Your task to perform on an android device: What's on my calendar today? Image 0: 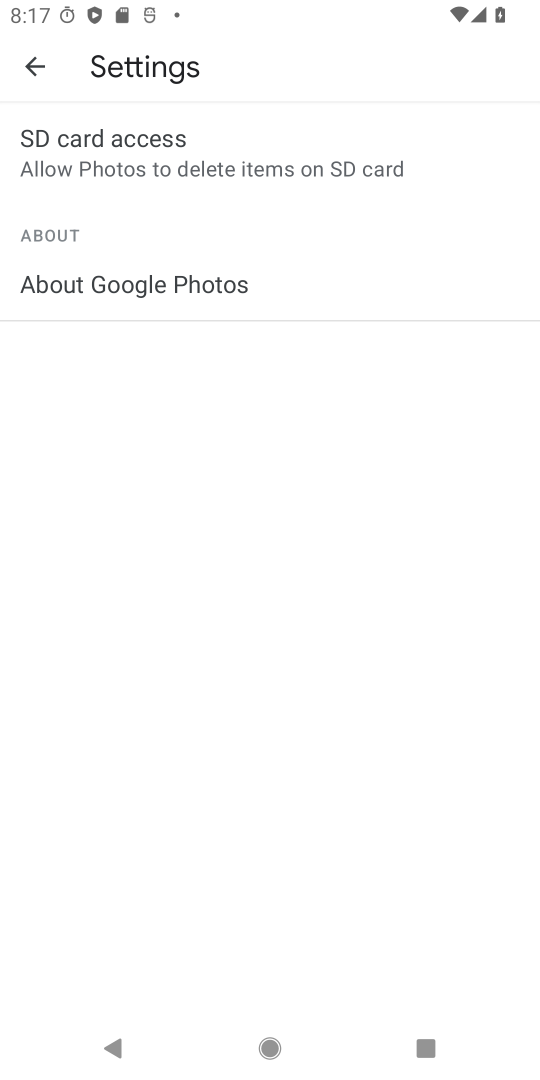
Step 0: click (28, 82)
Your task to perform on an android device: What's on my calendar today? Image 1: 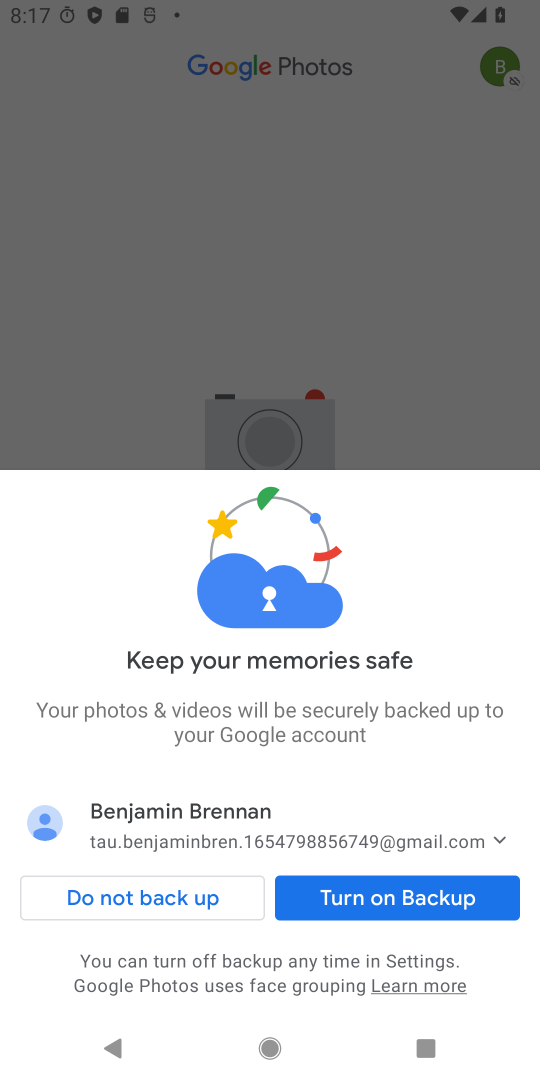
Step 1: click (371, 883)
Your task to perform on an android device: What's on my calendar today? Image 2: 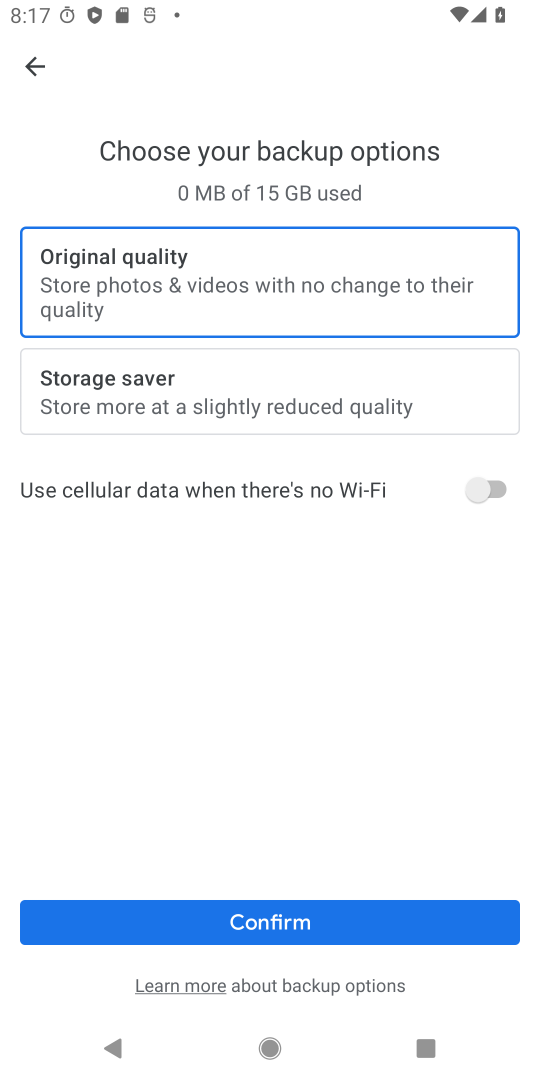
Step 2: click (29, 64)
Your task to perform on an android device: What's on my calendar today? Image 3: 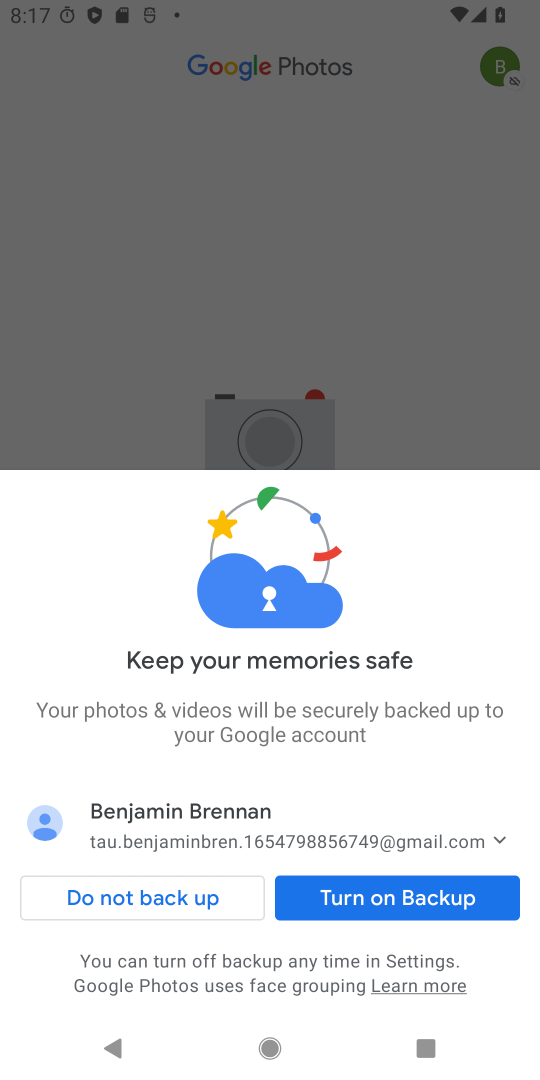
Step 3: click (358, 897)
Your task to perform on an android device: What's on my calendar today? Image 4: 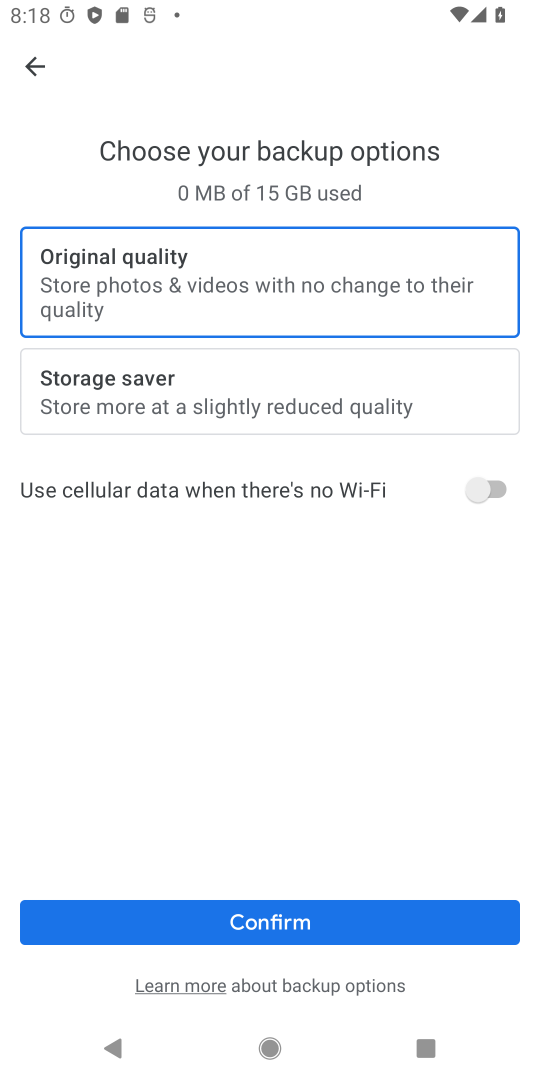
Step 4: click (287, 923)
Your task to perform on an android device: What's on my calendar today? Image 5: 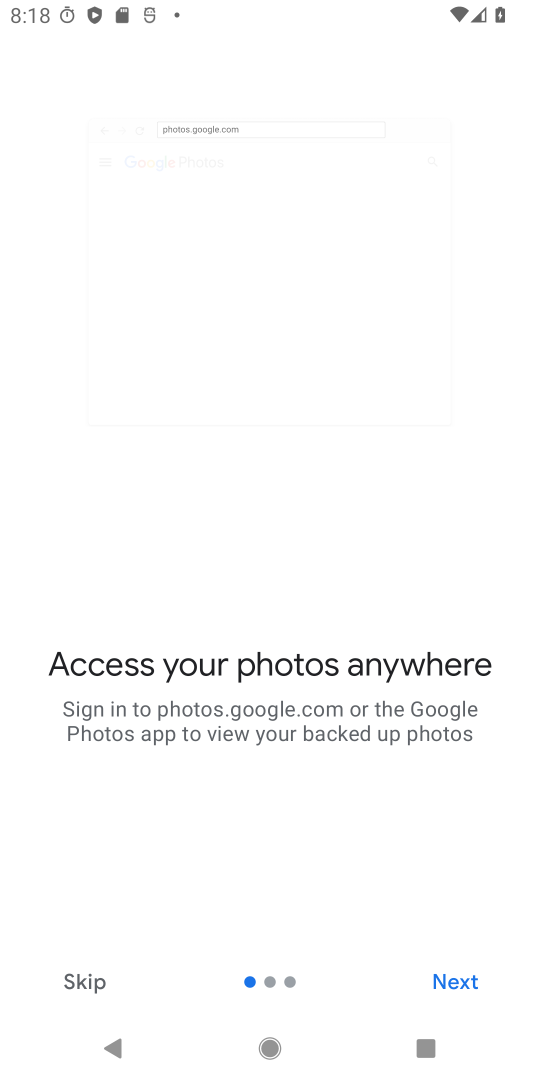
Step 5: click (444, 987)
Your task to perform on an android device: What's on my calendar today? Image 6: 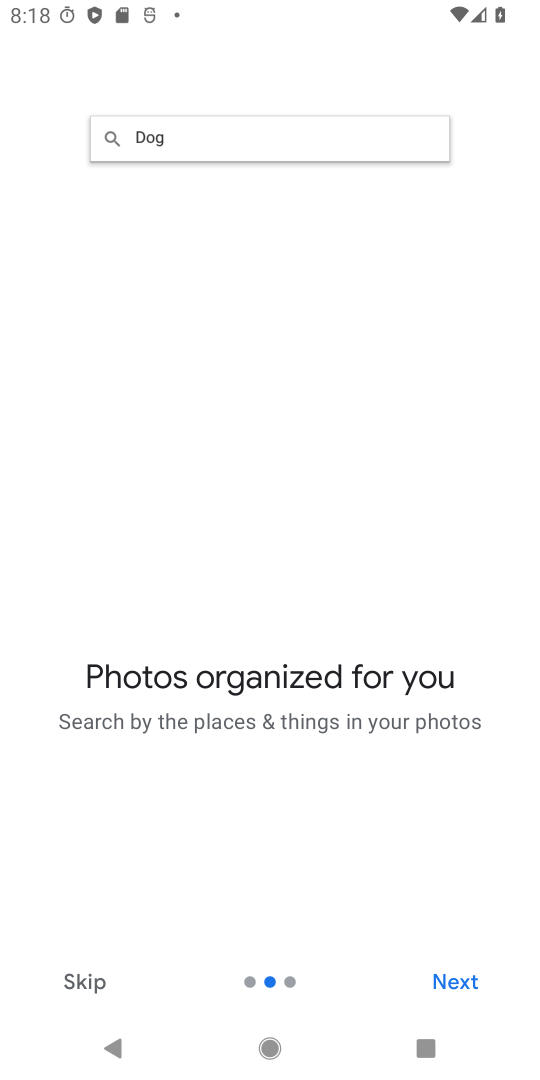
Step 6: click (444, 987)
Your task to perform on an android device: What's on my calendar today? Image 7: 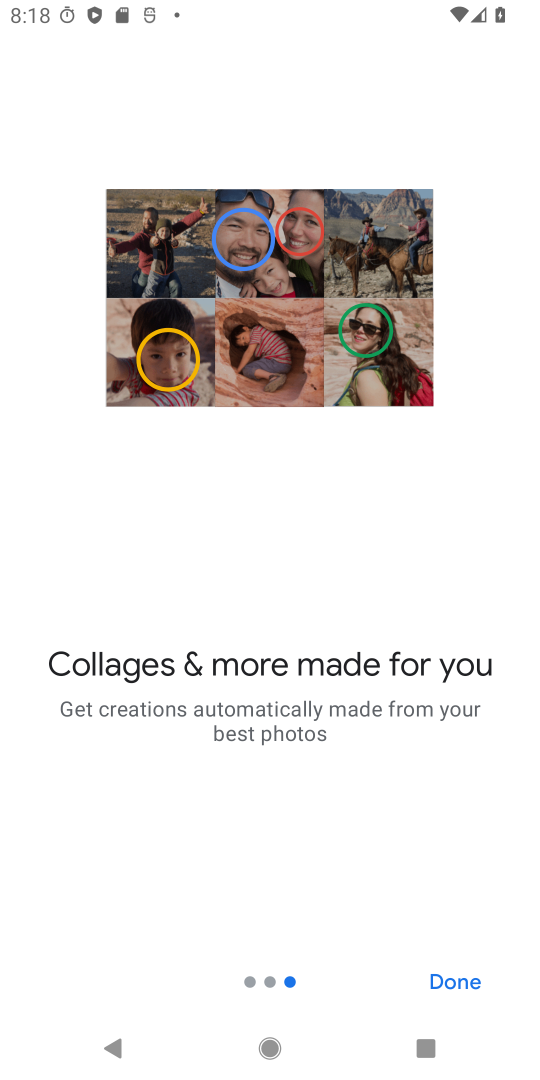
Step 7: click (444, 987)
Your task to perform on an android device: What's on my calendar today? Image 8: 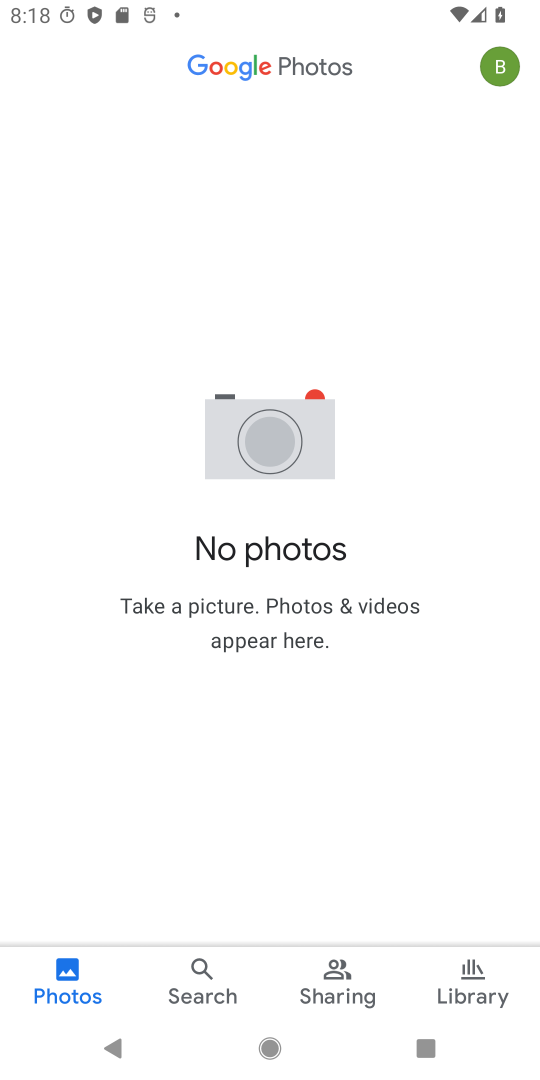
Step 8: press home button
Your task to perform on an android device: What's on my calendar today? Image 9: 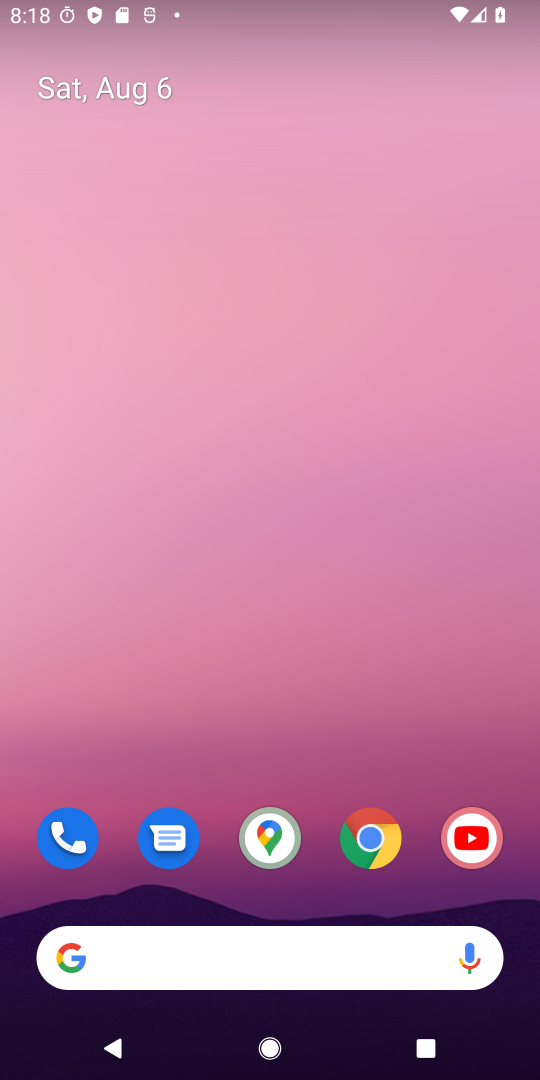
Step 9: drag from (241, 662) to (259, 180)
Your task to perform on an android device: What's on my calendar today? Image 10: 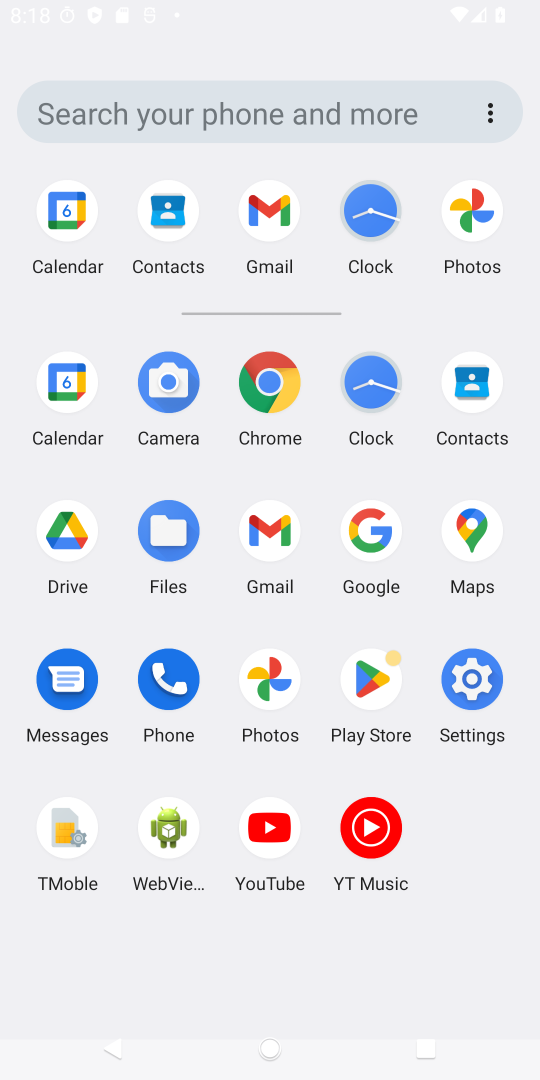
Step 10: drag from (223, 772) to (239, 429)
Your task to perform on an android device: What's on my calendar today? Image 11: 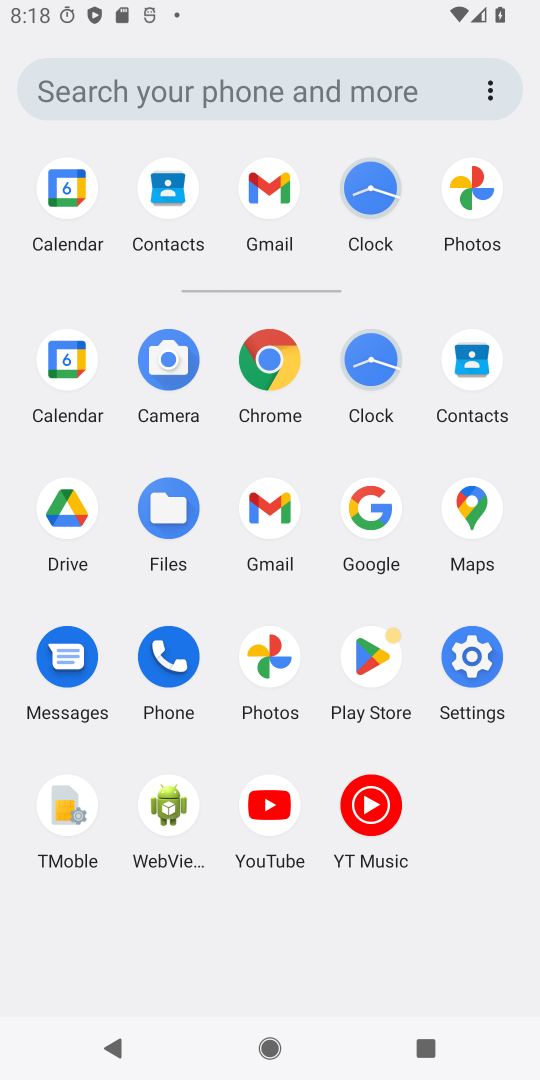
Step 11: click (63, 423)
Your task to perform on an android device: What's on my calendar today? Image 12: 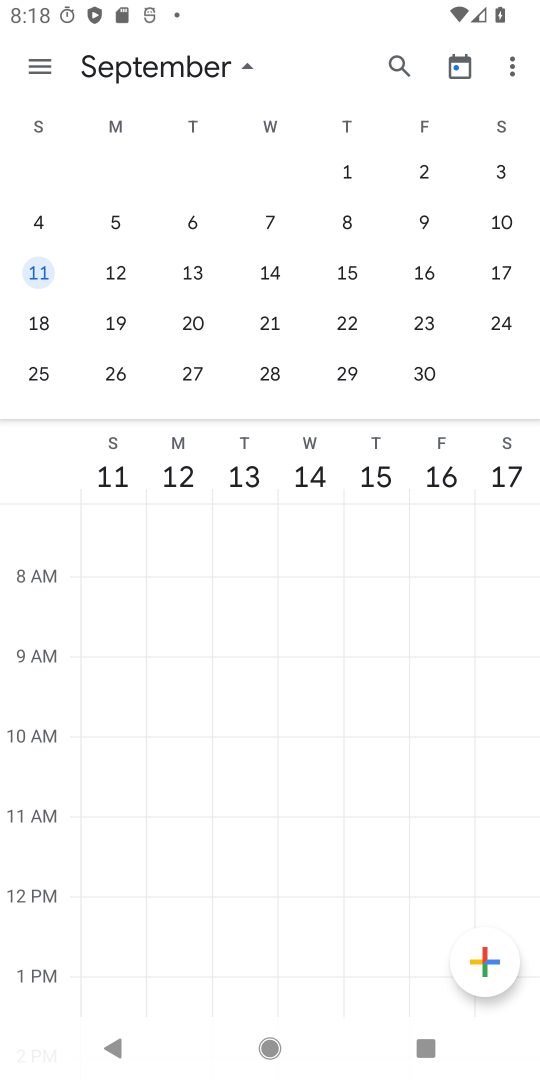
Step 12: drag from (113, 274) to (499, 274)
Your task to perform on an android device: What's on my calendar today? Image 13: 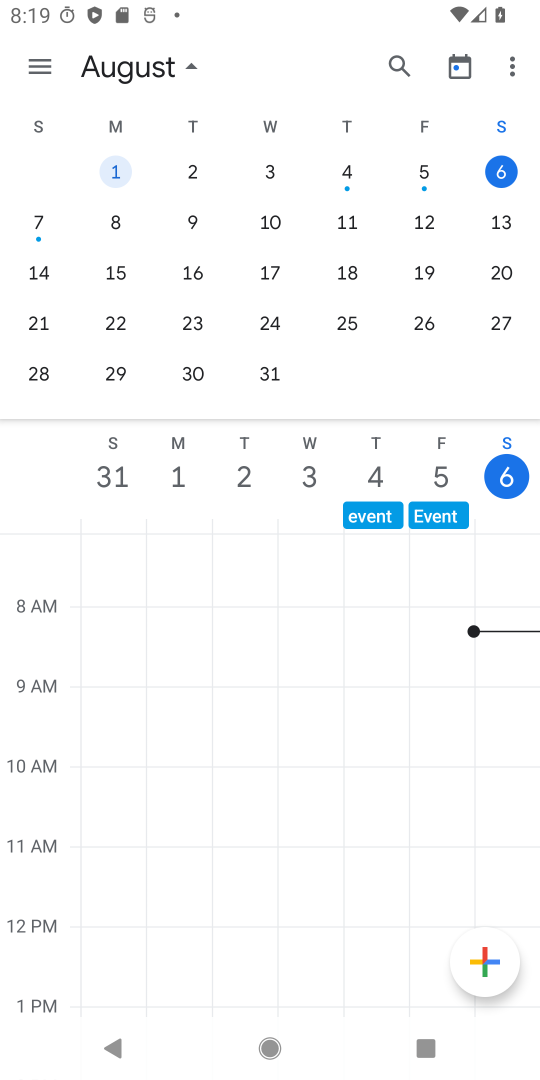
Step 13: click (501, 176)
Your task to perform on an android device: What's on my calendar today? Image 14: 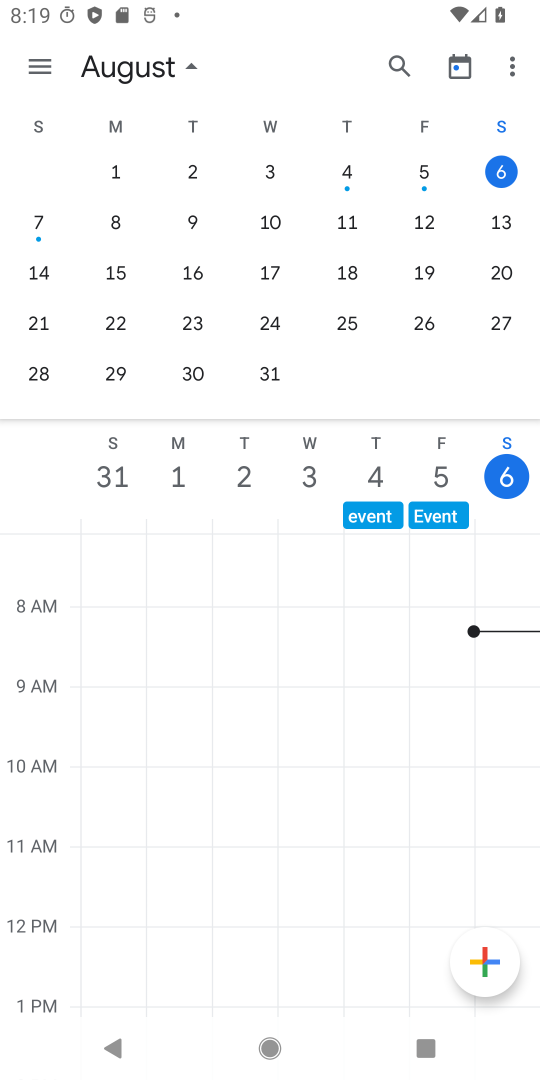
Step 14: task complete